Your task to perform on an android device: toggle data saver in the chrome app Image 0: 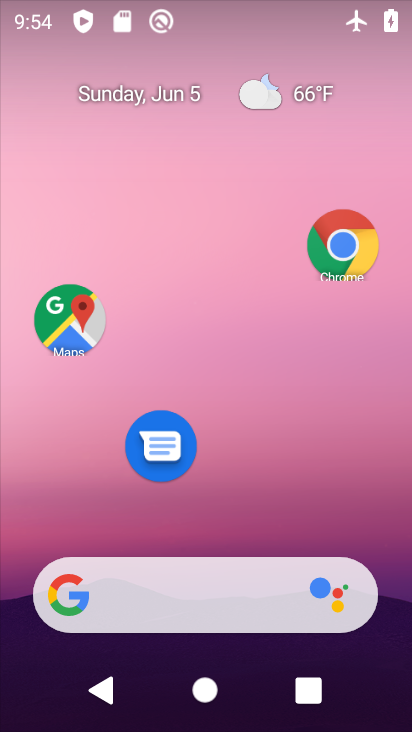
Step 0: click (326, 259)
Your task to perform on an android device: toggle data saver in the chrome app Image 1: 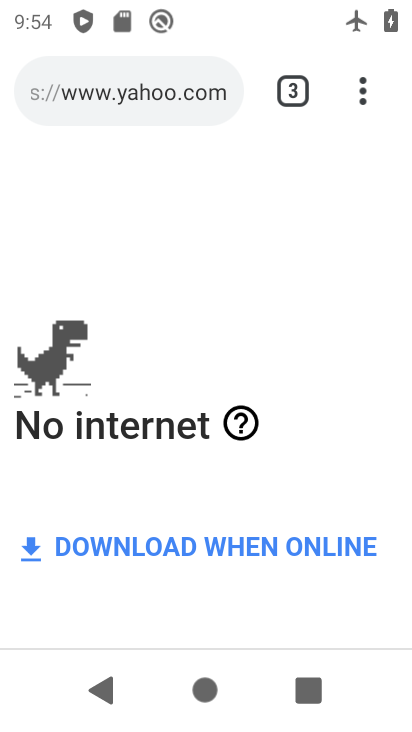
Step 1: drag from (355, 87) to (110, 495)
Your task to perform on an android device: toggle data saver in the chrome app Image 2: 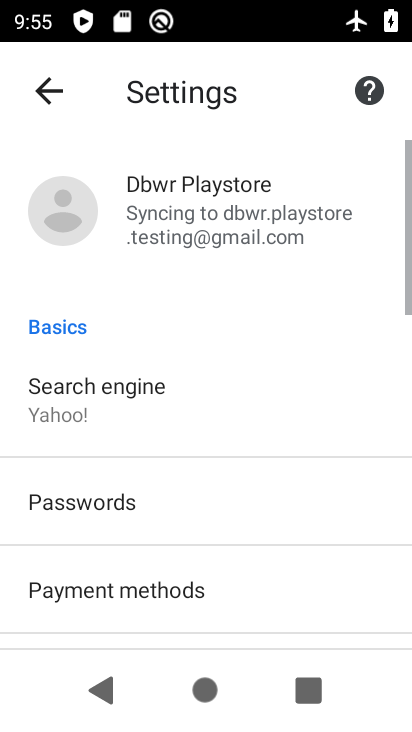
Step 2: drag from (183, 525) to (196, 240)
Your task to perform on an android device: toggle data saver in the chrome app Image 3: 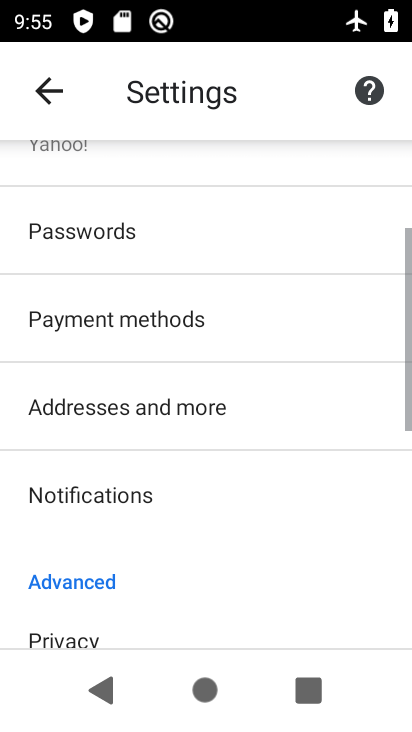
Step 3: drag from (189, 520) to (231, 242)
Your task to perform on an android device: toggle data saver in the chrome app Image 4: 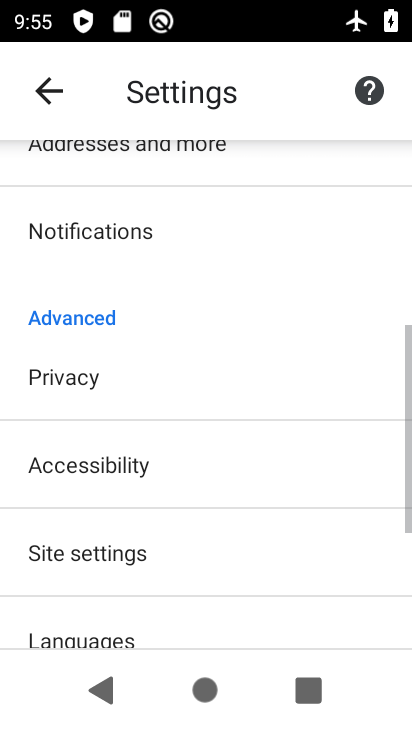
Step 4: drag from (212, 553) to (244, 312)
Your task to perform on an android device: toggle data saver in the chrome app Image 5: 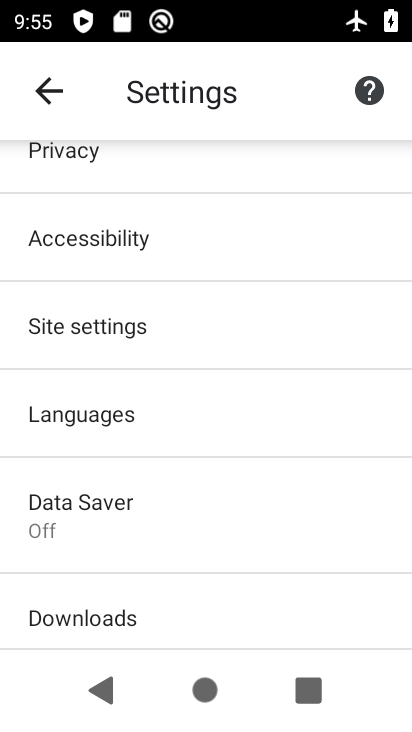
Step 5: drag from (243, 526) to (260, 345)
Your task to perform on an android device: toggle data saver in the chrome app Image 6: 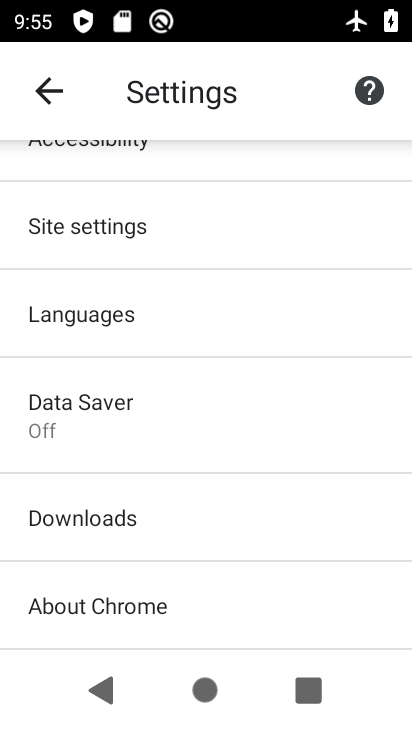
Step 6: click (232, 403)
Your task to perform on an android device: toggle data saver in the chrome app Image 7: 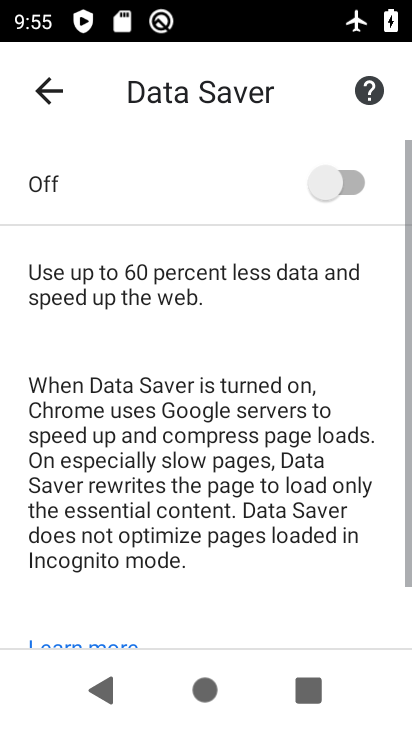
Step 7: click (358, 188)
Your task to perform on an android device: toggle data saver in the chrome app Image 8: 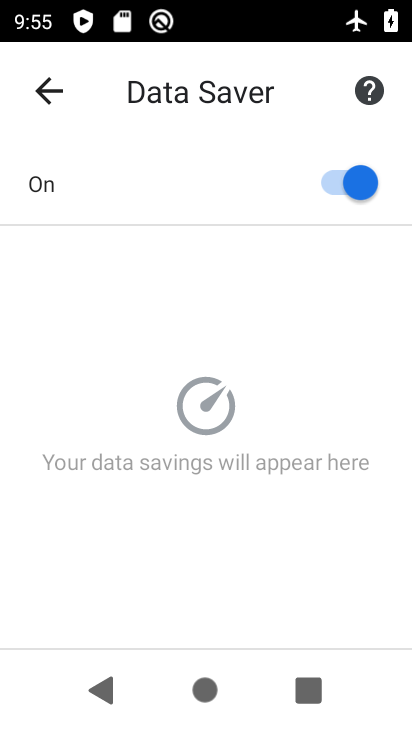
Step 8: task complete